Your task to perform on an android device: open app "Google Play Music" Image 0: 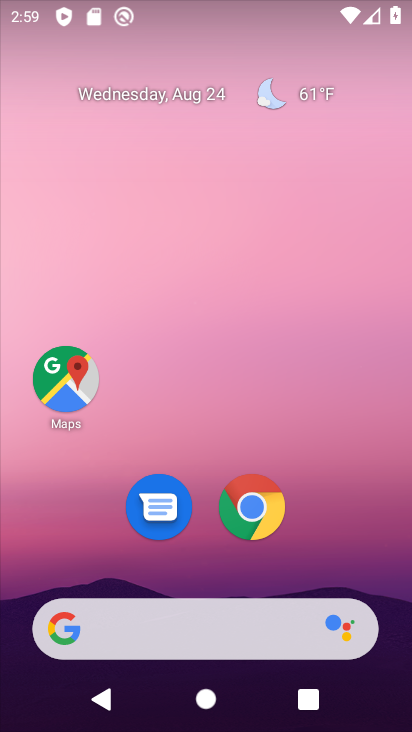
Step 0: drag from (179, 647) to (266, 37)
Your task to perform on an android device: open app "Google Play Music" Image 1: 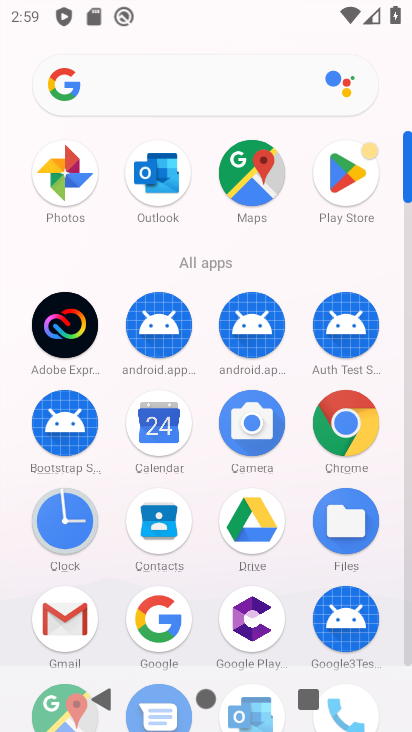
Step 1: click (350, 180)
Your task to perform on an android device: open app "Google Play Music" Image 2: 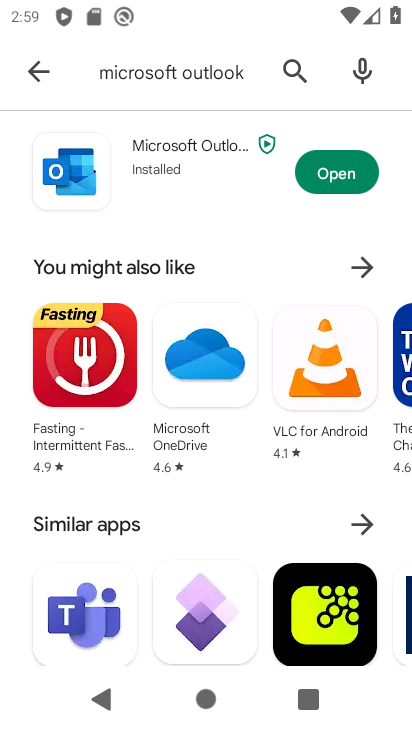
Step 2: press back button
Your task to perform on an android device: open app "Google Play Music" Image 3: 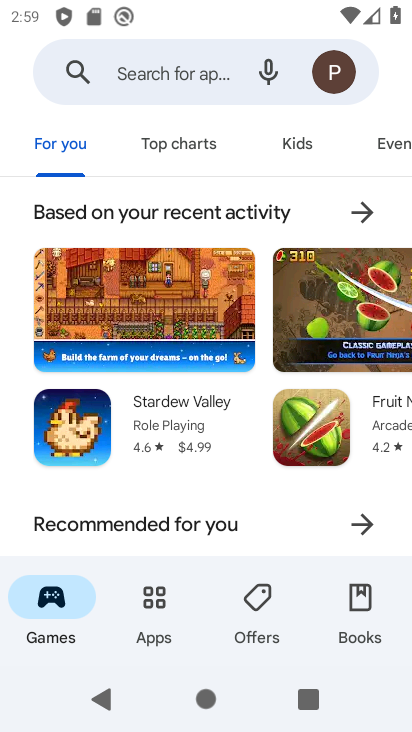
Step 3: click (165, 74)
Your task to perform on an android device: open app "Google Play Music" Image 4: 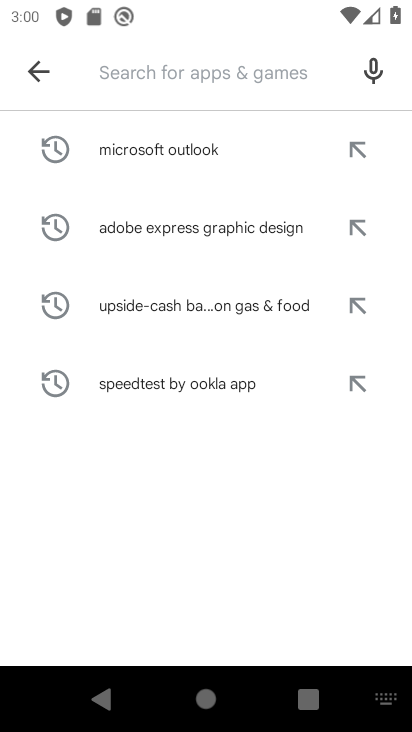
Step 4: type "Google Play Music"
Your task to perform on an android device: open app "Google Play Music" Image 5: 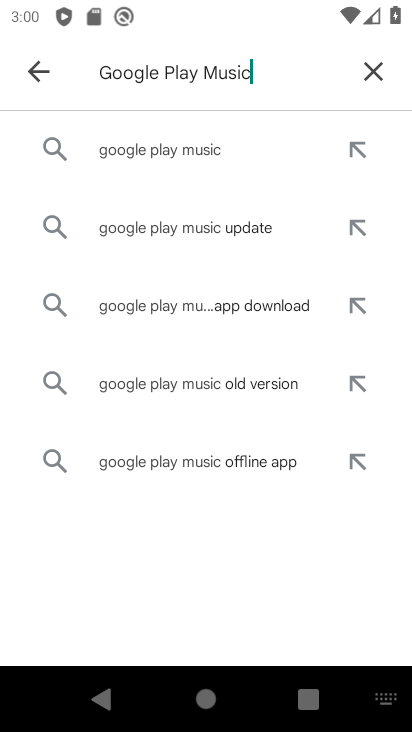
Step 5: click (170, 148)
Your task to perform on an android device: open app "Google Play Music" Image 6: 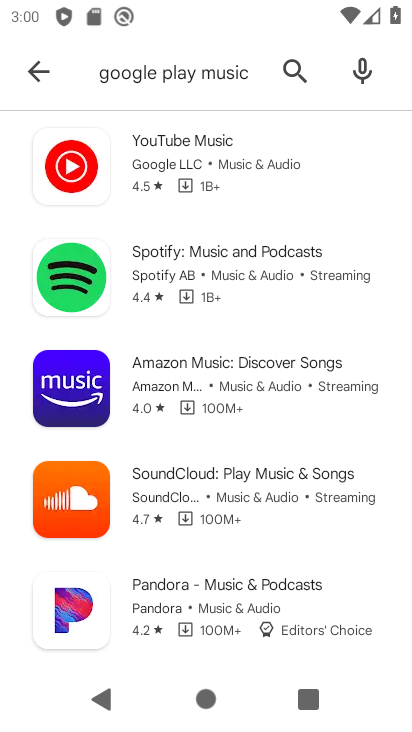
Step 6: click (201, 141)
Your task to perform on an android device: open app "Google Play Music" Image 7: 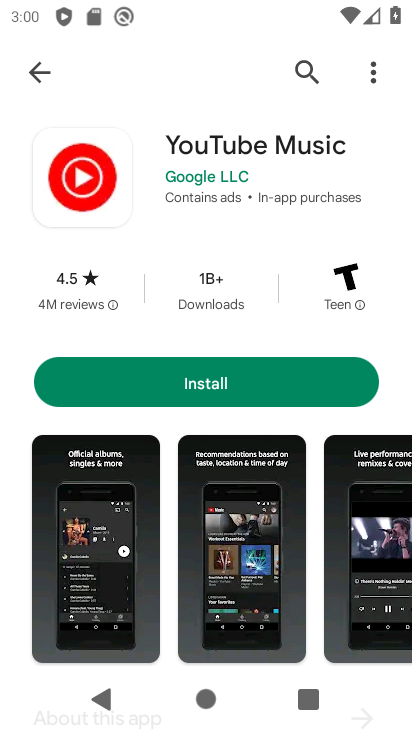
Step 7: task complete